Your task to perform on an android device: What's on my calendar tomorrow? Image 0: 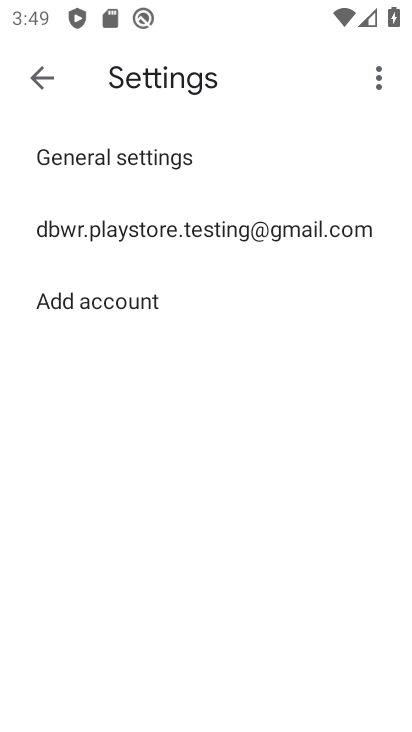
Step 0: press home button
Your task to perform on an android device: What's on my calendar tomorrow? Image 1: 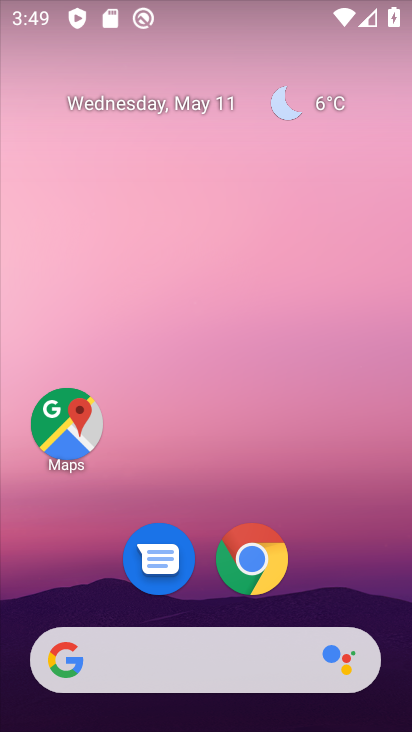
Step 1: drag from (353, 597) to (364, 163)
Your task to perform on an android device: What's on my calendar tomorrow? Image 2: 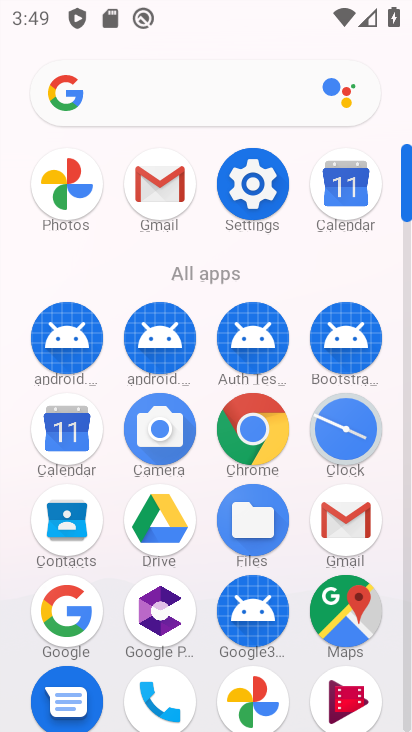
Step 2: click (54, 428)
Your task to perform on an android device: What's on my calendar tomorrow? Image 3: 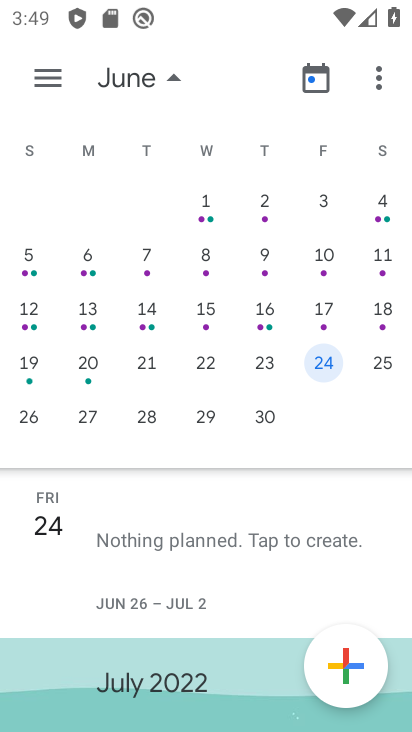
Step 3: click (377, 356)
Your task to perform on an android device: What's on my calendar tomorrow? Image 4: 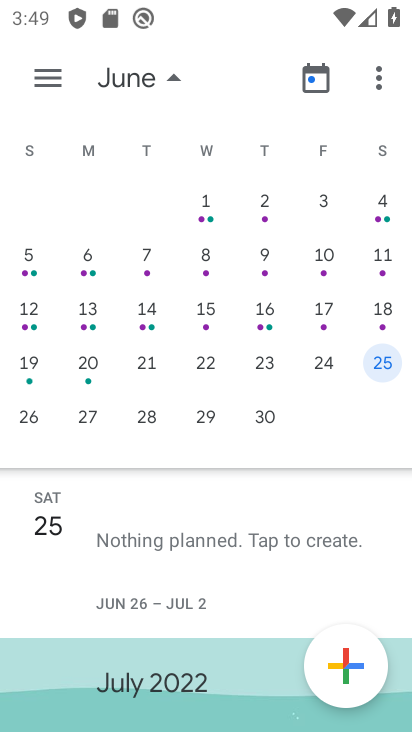
Step 4: task complete